Your task to perform on an android device: Show me the alarms in the clock app Image 0: 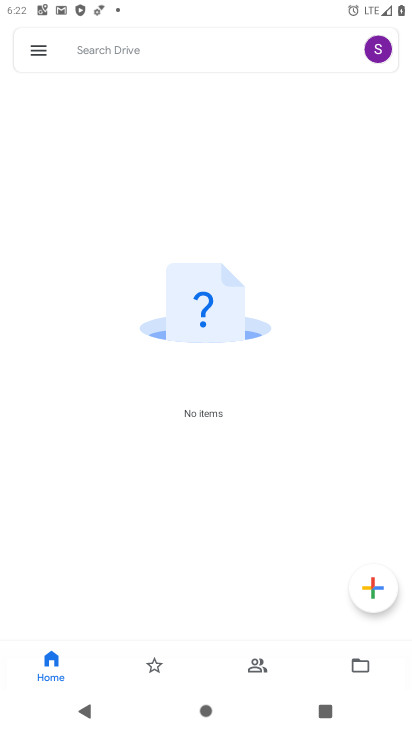
Step 0: press home button
Your task to perform on an android device: Show me the alarms in the clock app Image 1: 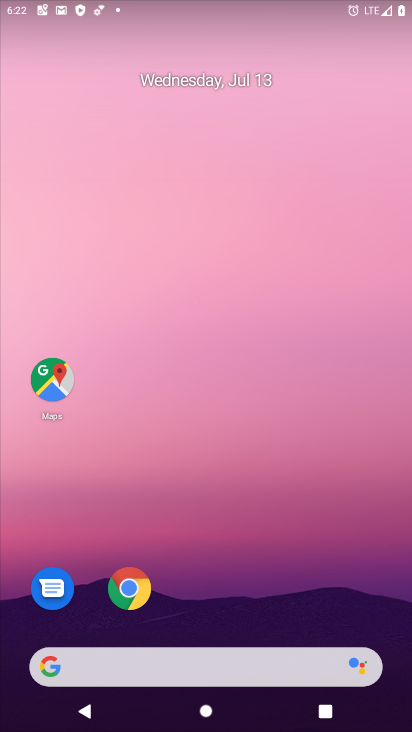
Step 1: drag from (141, 369) to (133, 2)
Your task to perform on an android device: Show me the alarms in the clock app Image 2: 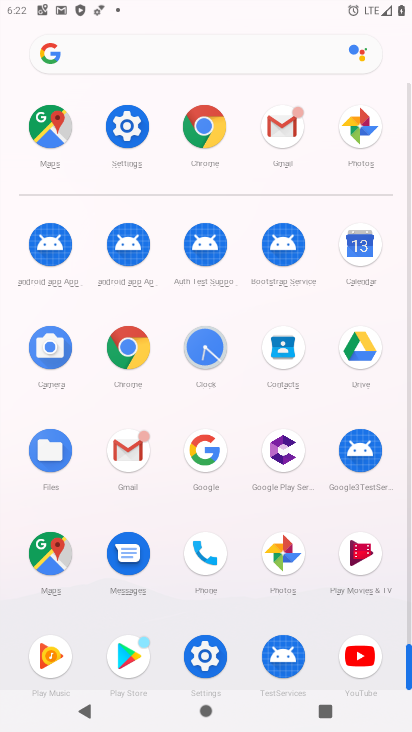
Step 2: click (201, 356)
Your task to perform on an android device: Show me the alarms in the clock app Image 3: 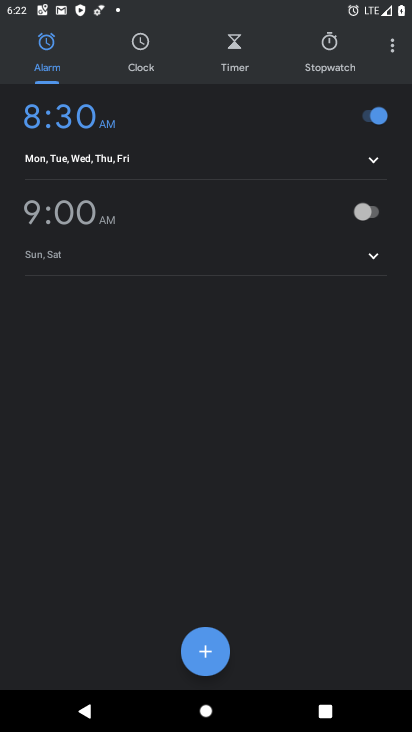
Step 3: task complete